Your task to perform on an android device: turn notification dots on Image 0: 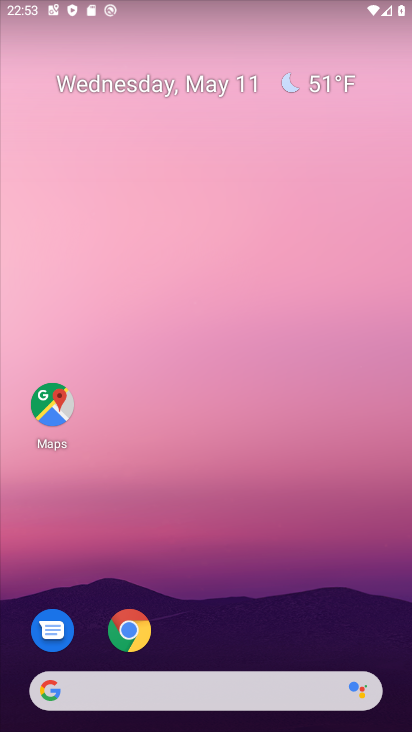
Step 0: drag from (207, 729) to (215, 139)
Your task to perform on an android device: turn notification dots on Image 1: 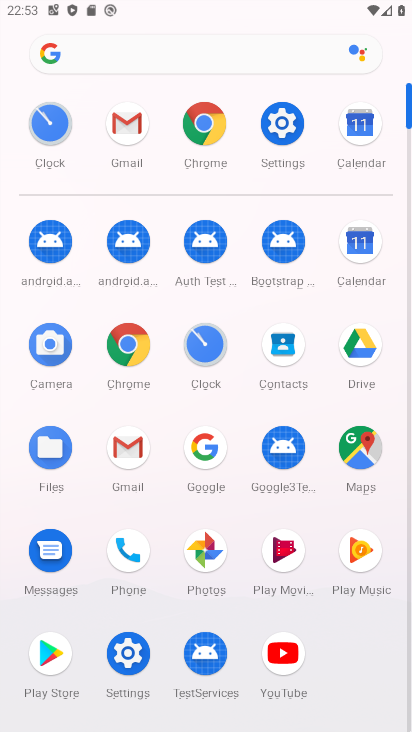
Step 1: click (285, 123)
Your task to perform on an android device: turn notification dots on Image 2: 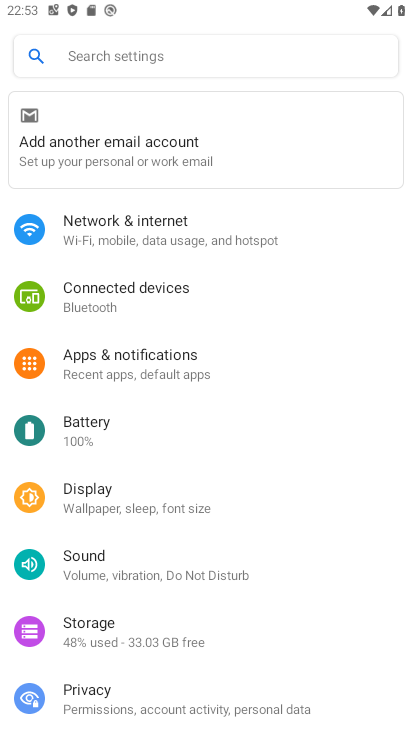
Step 2: click (136, 347)
Your task to perform on an android device: turn notification dots on Image 3: 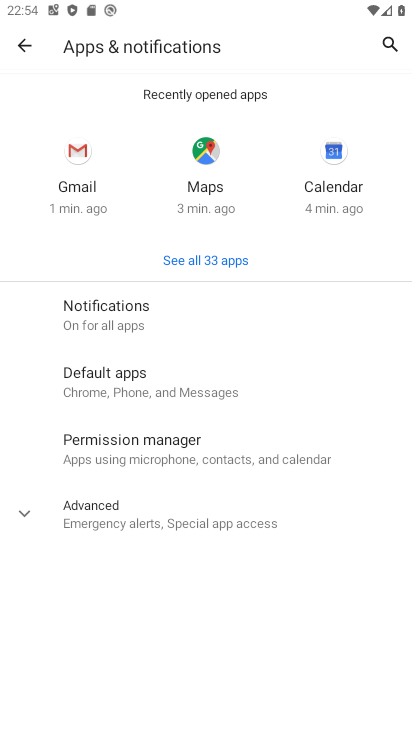
Step 3: click (97, 314)
Your task to perform on an android device: turn notification dots on Image 4: 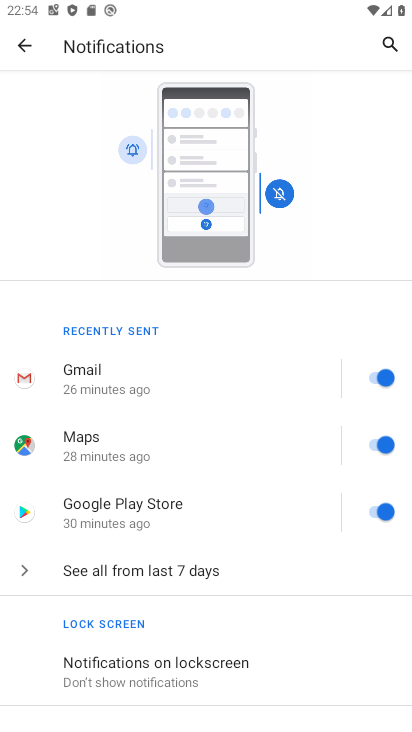
Step 4: drag from (169, 663) to (204, 272)
Your task to perform on an android device: turn notification dots on Image 5: 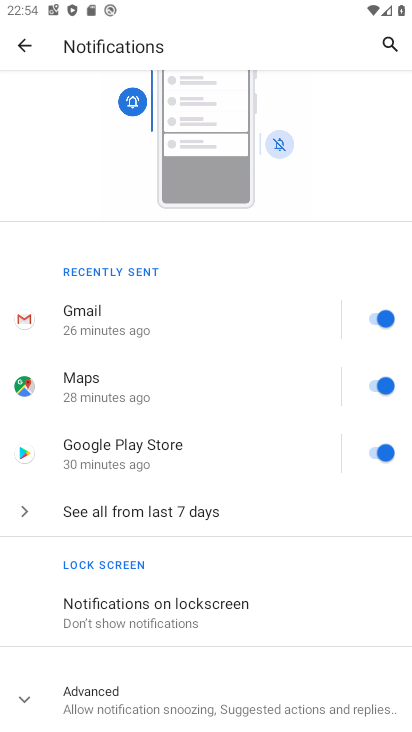
Step 5: drag from (140, 688) to (156, 286)
Your task to perform on an android device: turn notification dots on Image 6: 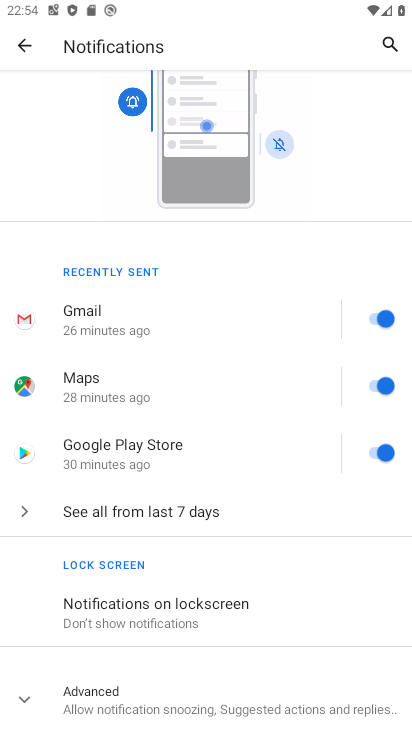
Step 6: click (94, 698)
Your task to perform on an android device: turn notification dots on Image 7: 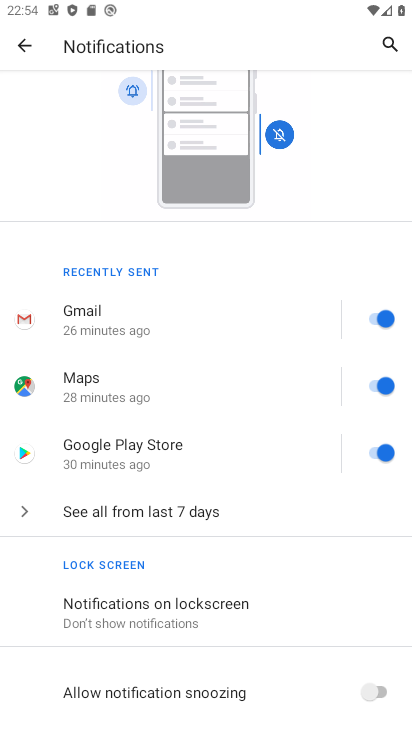
Step 7: drag from (275, 677) to (280, 502)
Your task to perform on an android device: turn notification dots on Image 8: 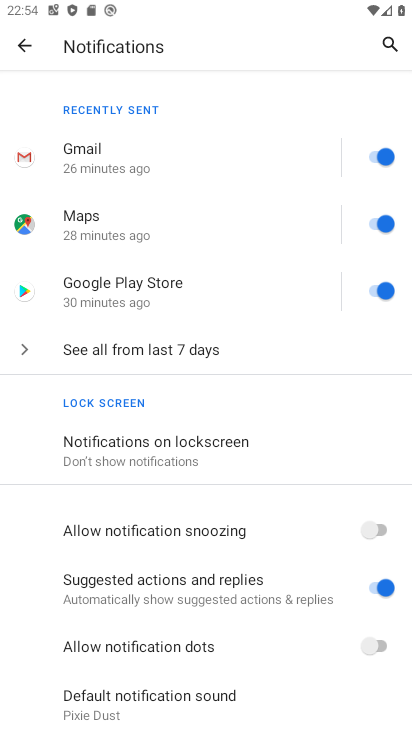
Step 8: click (382, 643)
Your task to perform on an android device: turn notification dots on Image 9: 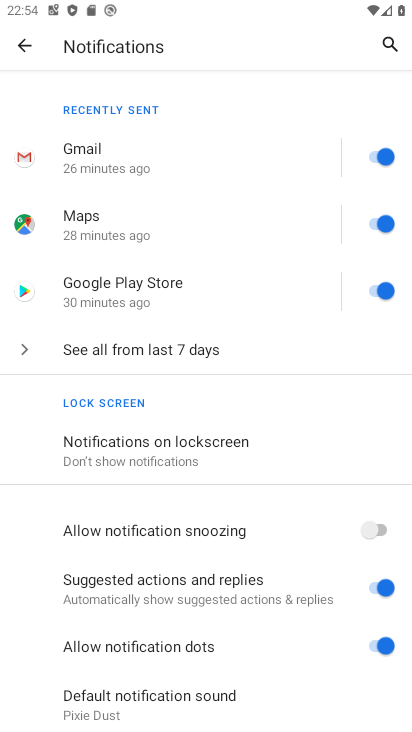
Step 9: task complete